Your task to perform on an android device: install app "Google Calendar" Image 0: 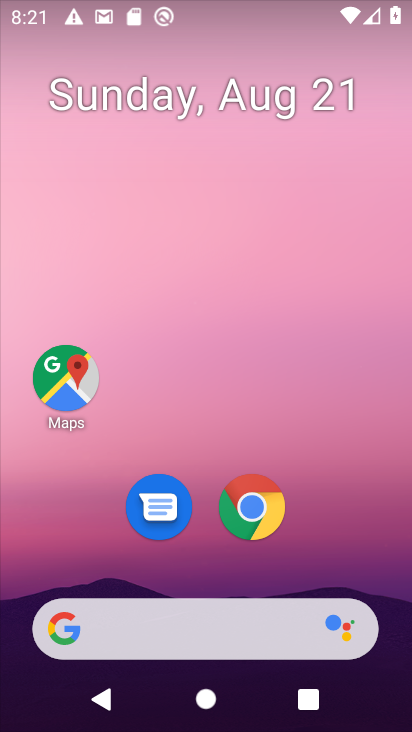
Step 0: drag from (196, 499) to (190, 89)
Your task to perform on an android device: install app "Google Calendar" Image 1: 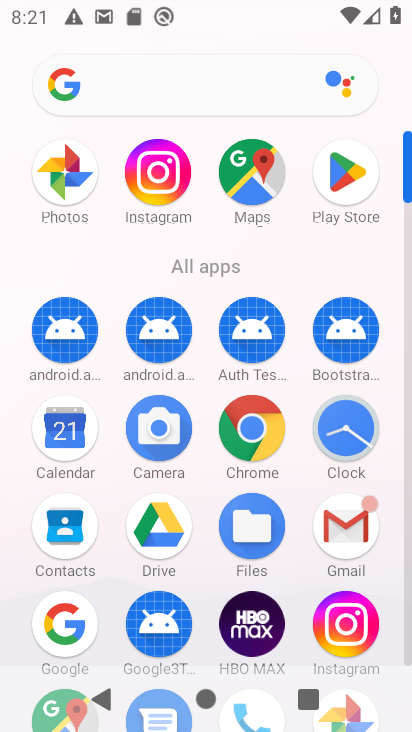
Step 1: click (54, 438)
Your task to perform on an android device: install app "Google Calendar" Image 2: 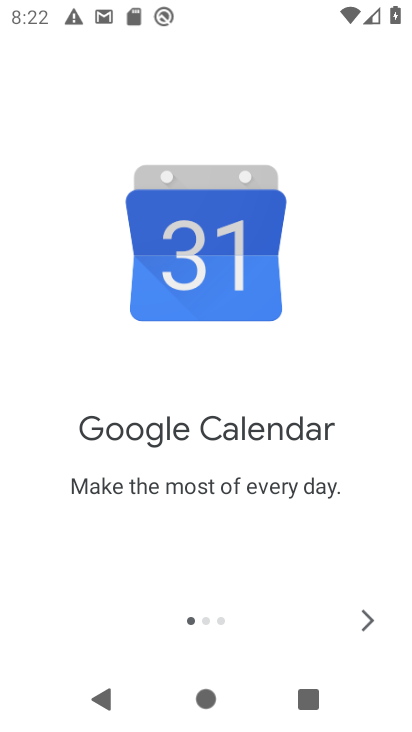
Step 2: task complete